Your task to perform on an android device: turn on wifi Image 0: 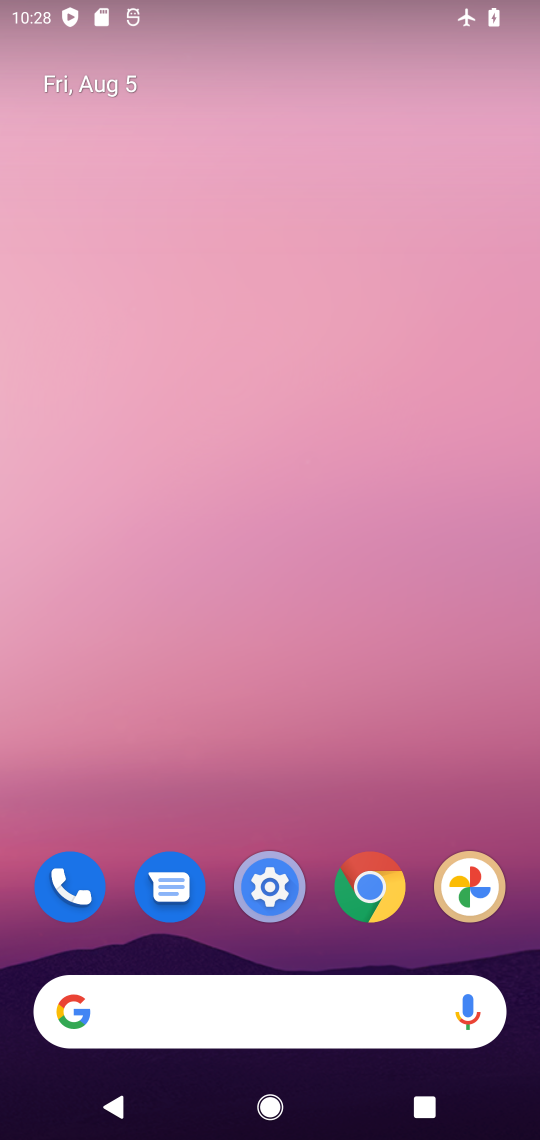
Step 0: click (267, 867)
Your task to perform on an android device: turn on wifi Image 1: 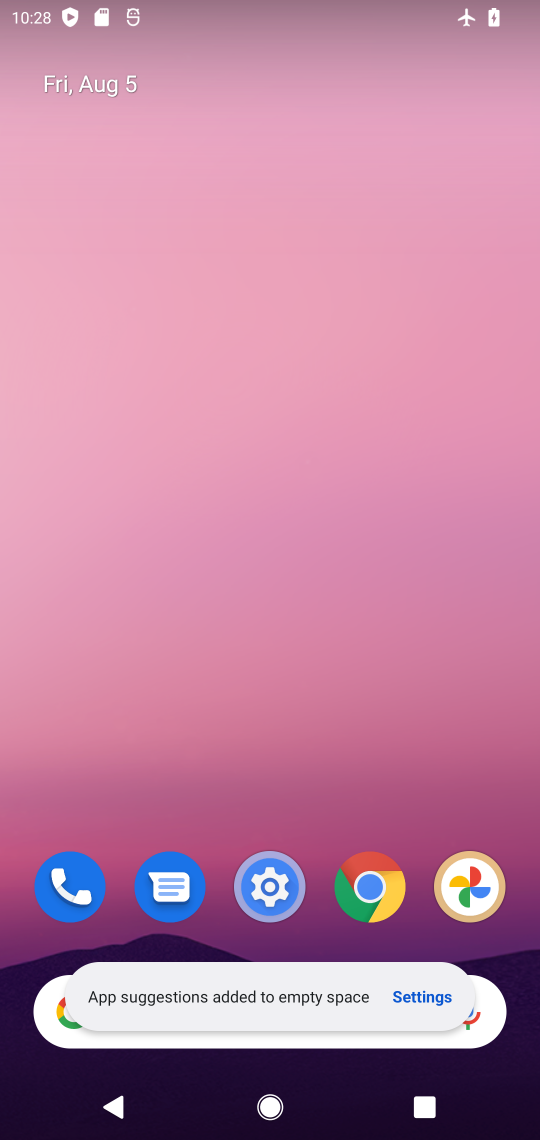
Step 1: click (316, 526)
Your task to perform on an android device: turn on wifi Image 2: 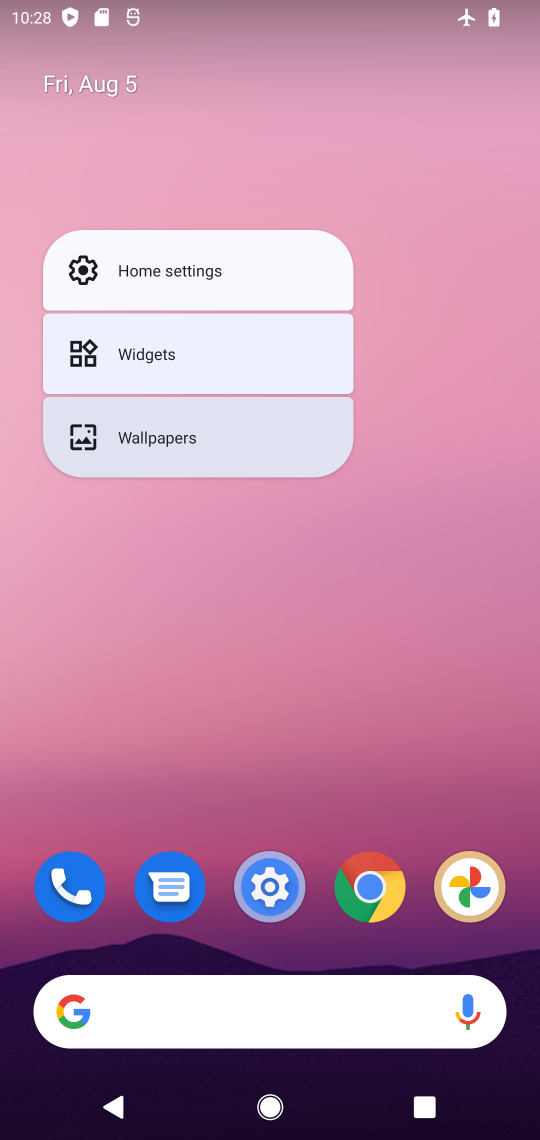
Step 2: click (267, 886)
Your task to perform on an android device: turn on wifi Image 3: 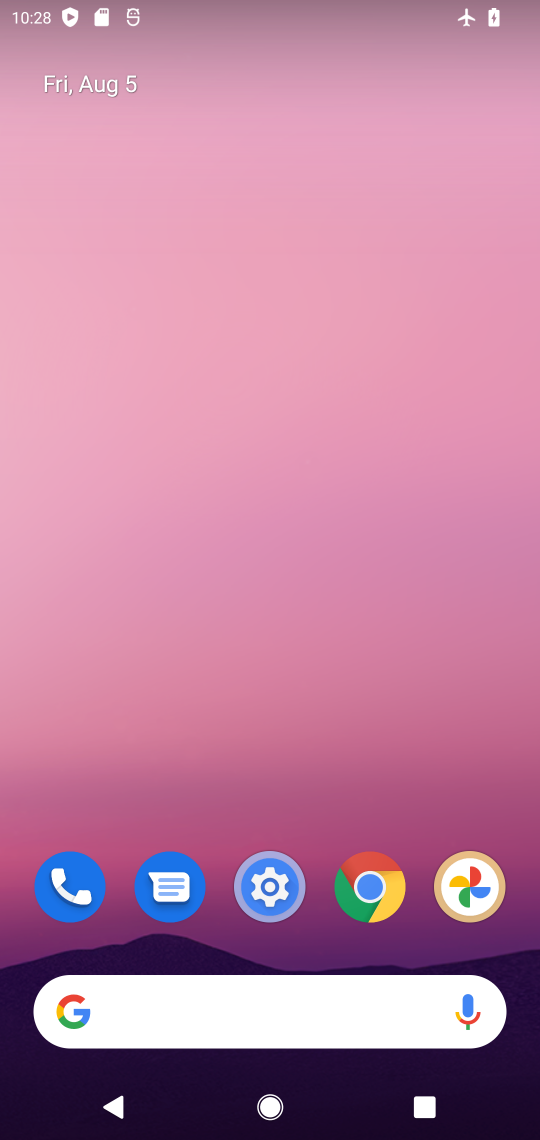
Step 3: click (259, 883)
Your task to perform on an android device: turn on wifi Image 4: 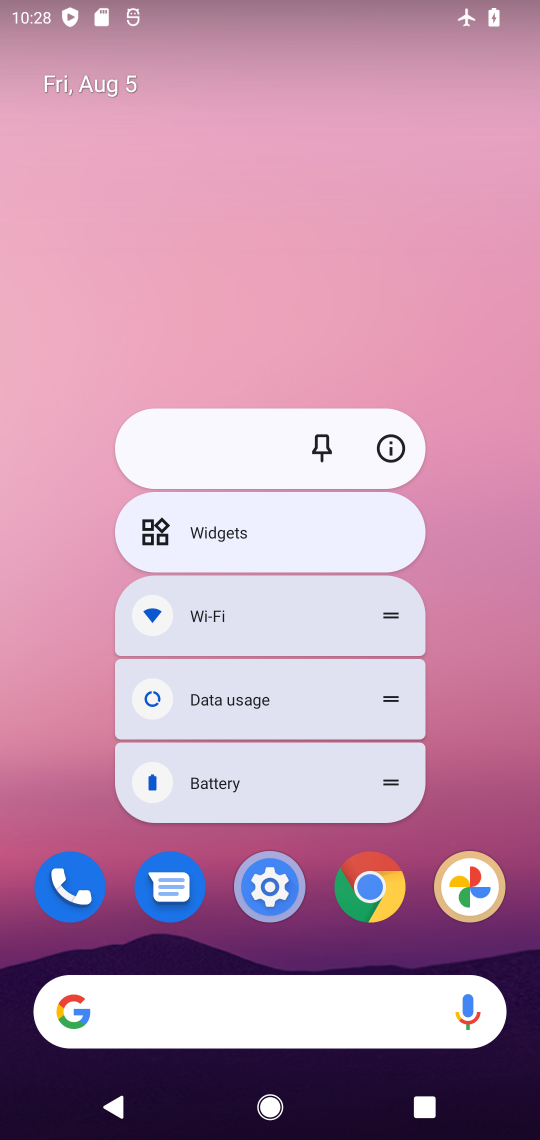
Step 4: click (273, 890)
Your task to perform on an android device: turn on wifi Image 5: 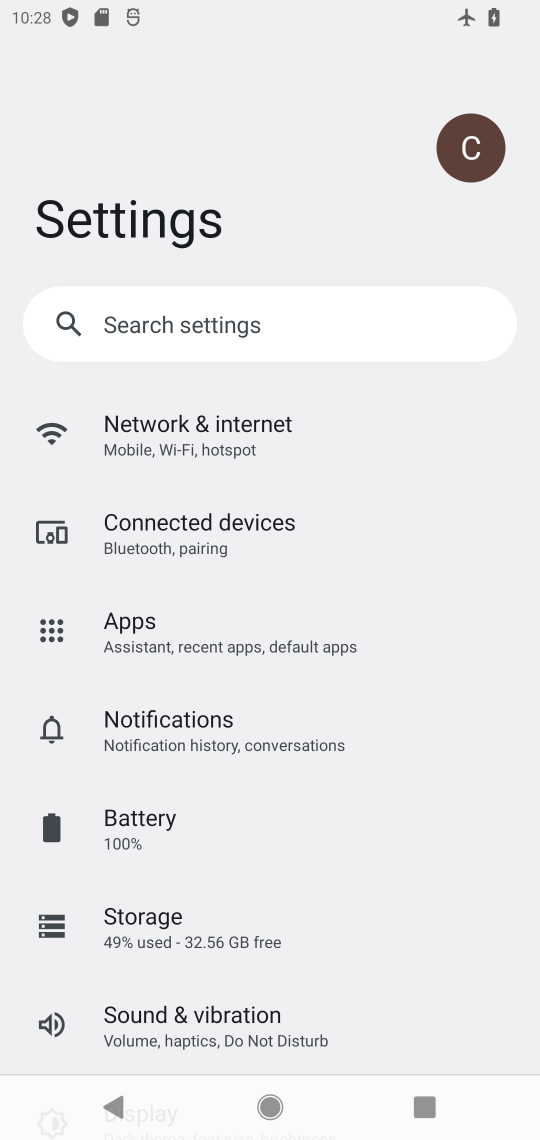
Step 5: click (225, 437)
Your task to perform on an android device: turn on wifi Image 6: 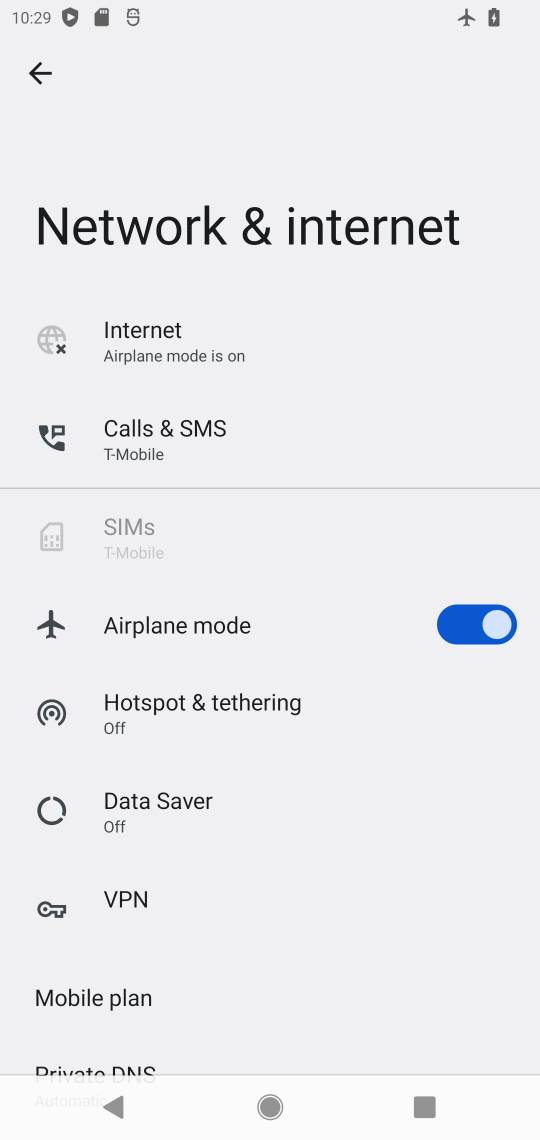
Step 6: click (198, 347)
Your task to perform on an android device: turn on wifi Image 7: 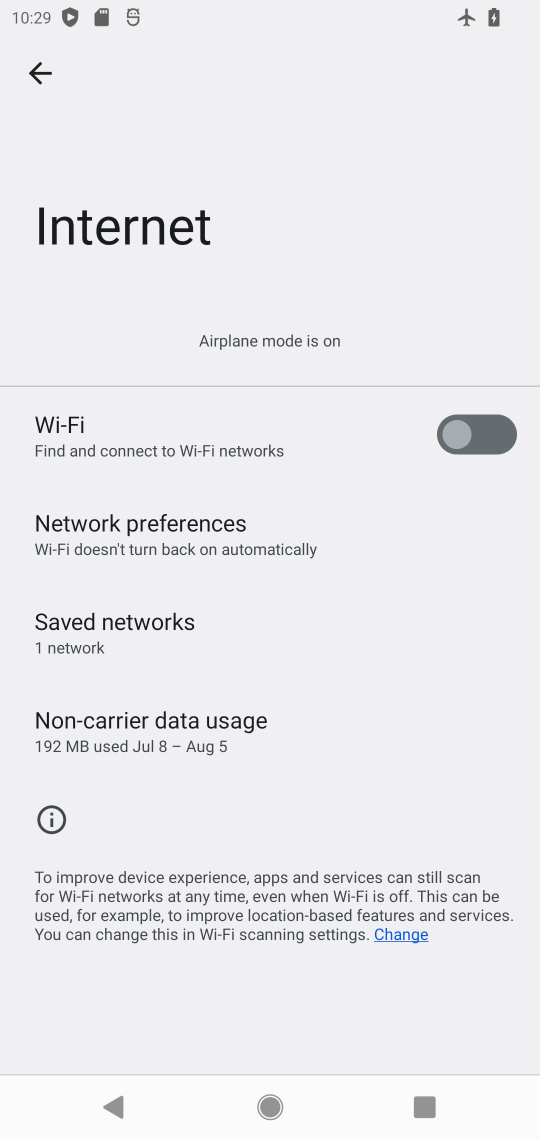
Step 7: click (467, 435)
Your task to perform on an android device: turn on wifi Image 8: 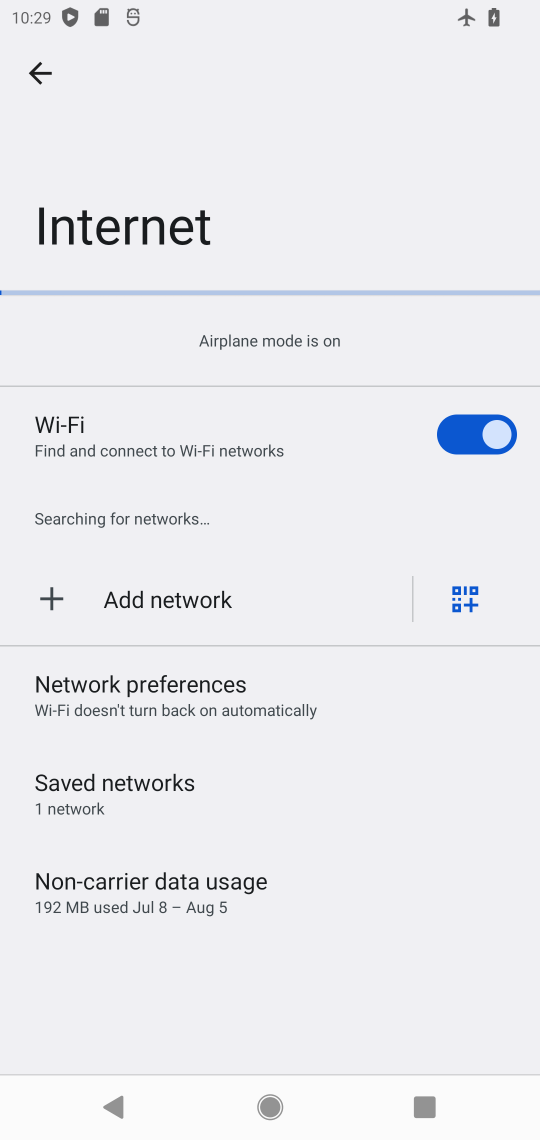
Step 8: task complete